Your task to perform on an android device: empty trash in google photos Image 0: 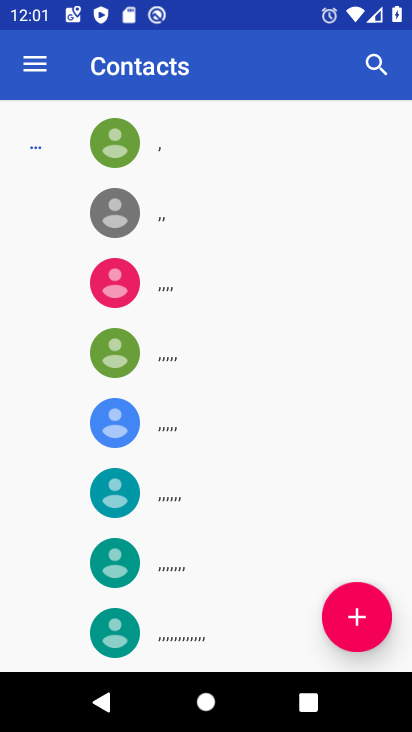
Step 0: click (75, 410)
Your task to perform on an android device: empty trash in google photos Image 1: 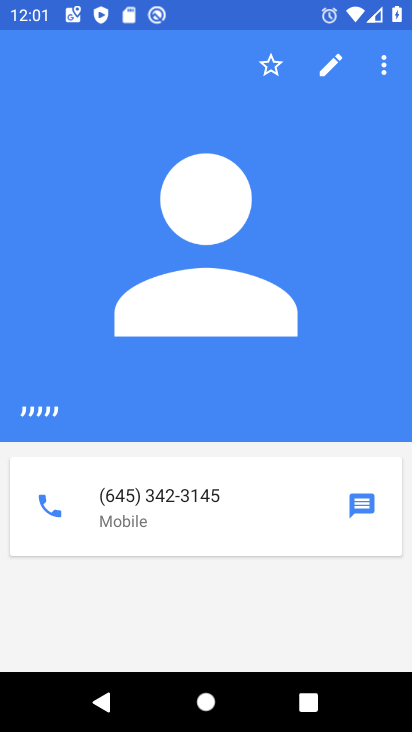
Step 1: press home button
Your task to perform on an android device: empty trash in google photos Image 2: 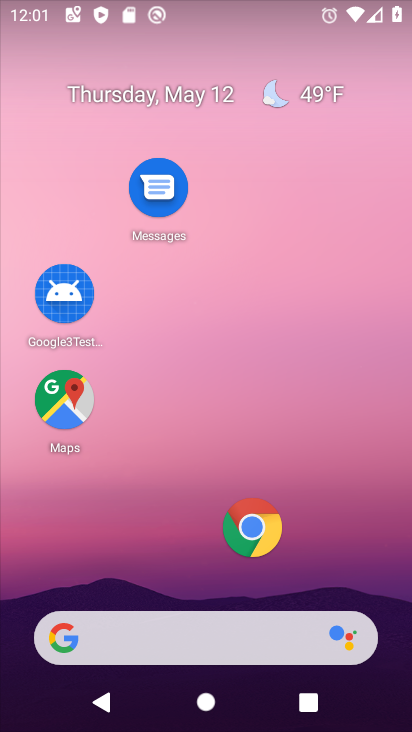
Step 2: drag from (205, 579) to (172, 121)
Your task to perform on an android device: empty trash in google photos Image 3: 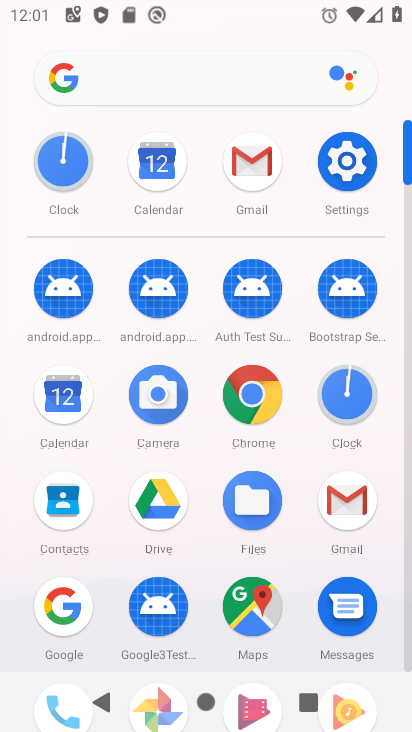
Step 3: drag from (220, 650) to (112, 204)
Your task to perform on an android device: empty trash in google photos Image 4: 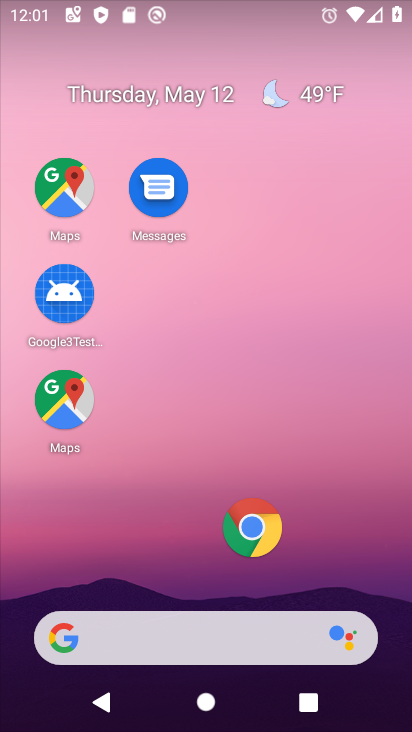
Step 4: drag from (185, 565) to (117, 24)
Your task to perform on an android device: empty trash in google photos Image 5: 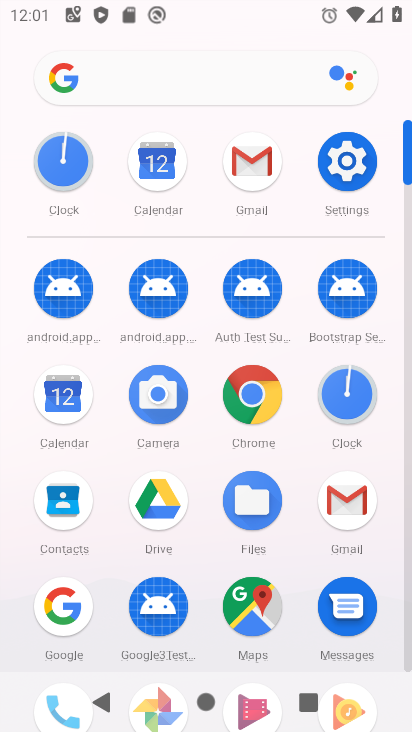
Step 5: drag from (196, 557) to (157, 325)
Your task to perform on an android device: empty trash in google photos Image 6: 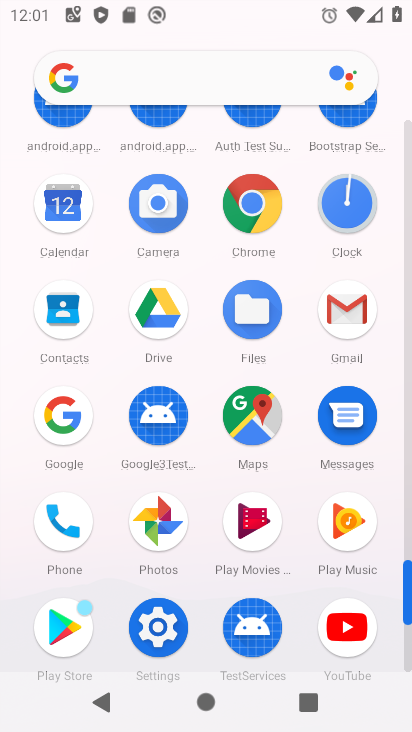
Step 6: click (152, 505)
Your task to perform on an android device: empty trash in google photos Image 7: 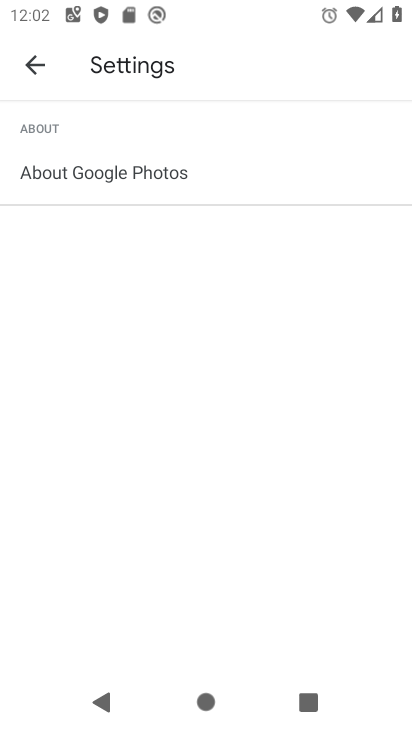
Step 7: click (35, 62)
Your task to perform on an android device: empty trash in google photos Image 8: 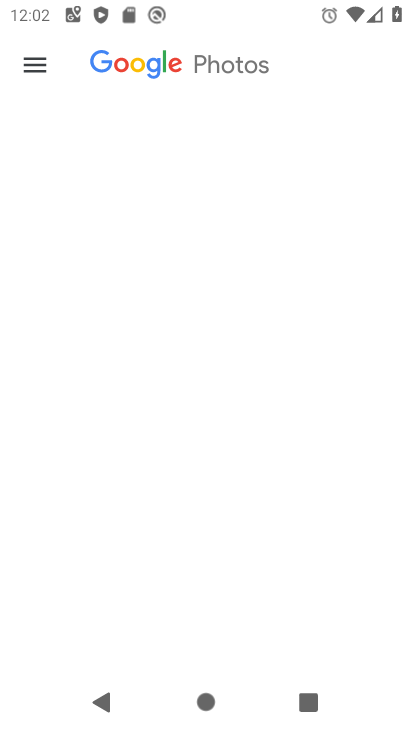
Step 8: click (35, 62)
Your task to perform on an android device: empty trash in google photos Image 9: 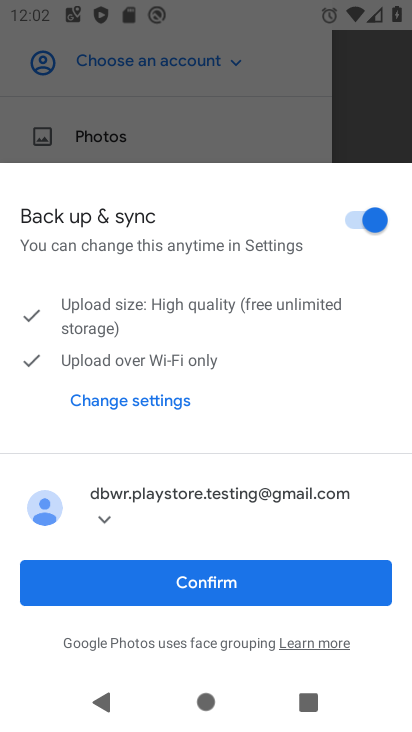
Step 9: click (174, 562)
Your task to perform on an android device: empty trash in google photos Image 10: 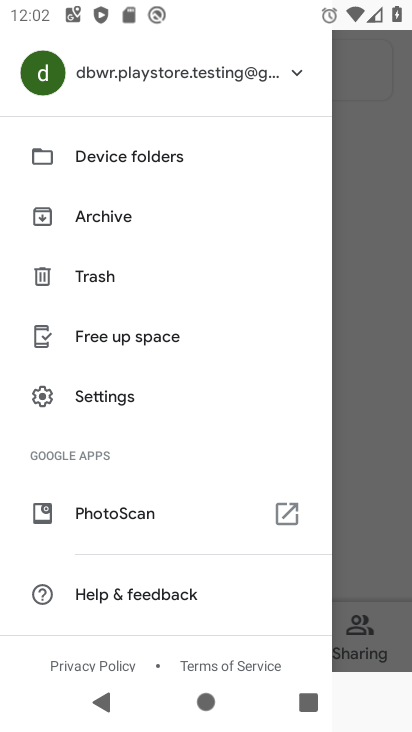
Step 10: click (65, 277)
Your task to perform on an android device: empty trash in google photos Image 11: 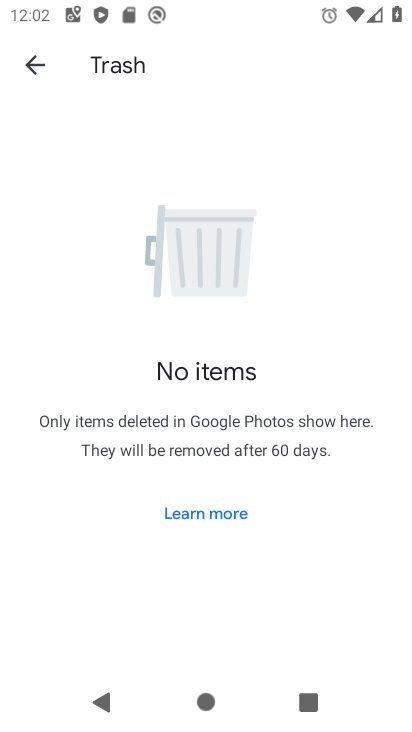
Step 11: task complete